Your task to perform on an android device: What's the weather today? Image 0: 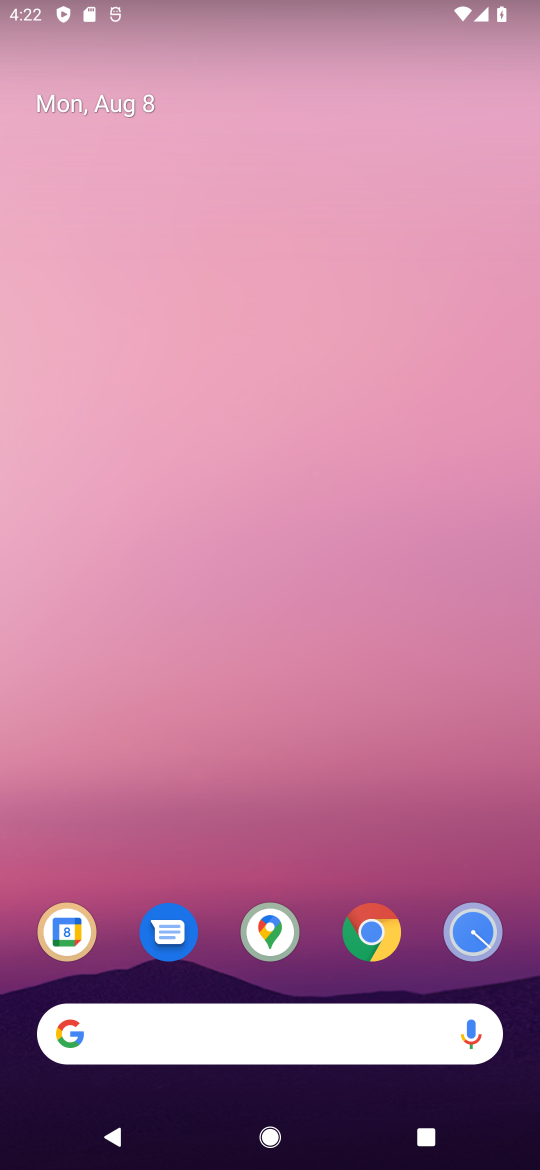
Step 0: click (334, 1038)
Your task to perform on an android device: What's the weather today? Image 1: 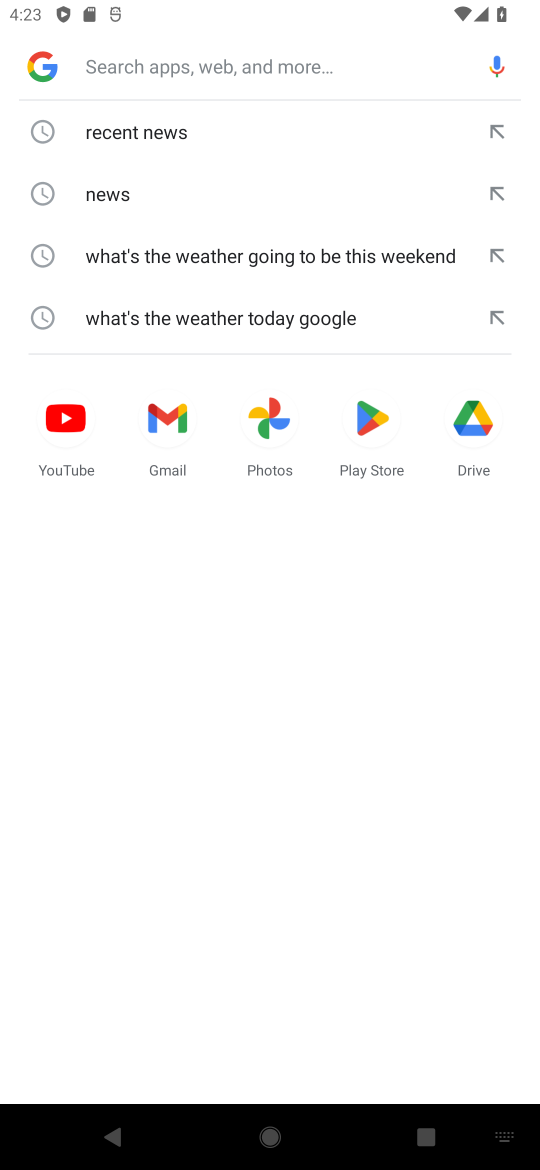
Step 1: type "What's the weather today?"
Your task to perform on an android device: What's the weather today? Image 2: 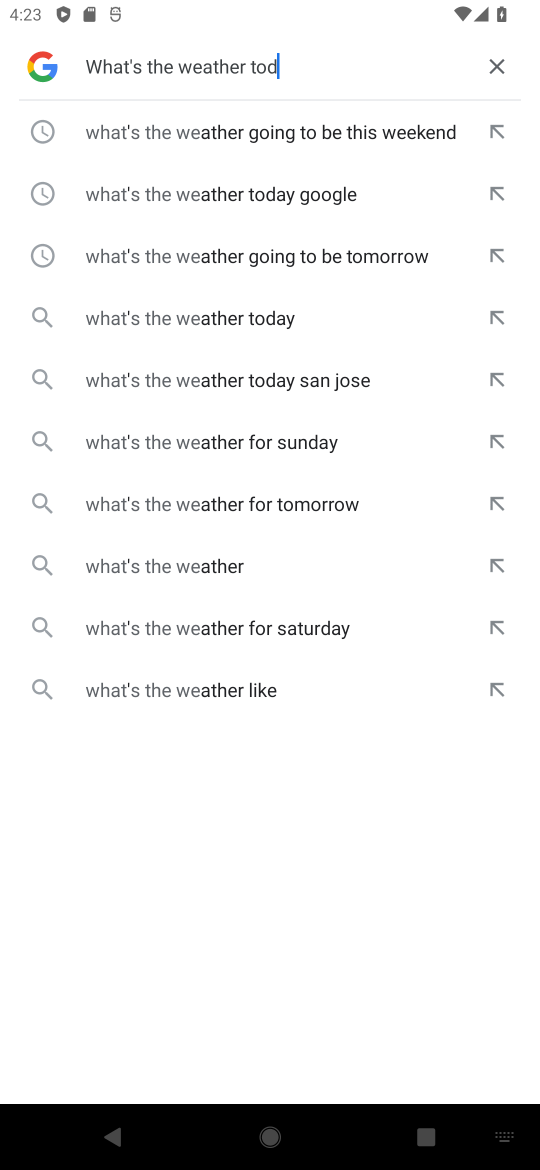
Step 2: type ""
Your task to perform on an android device: What's the weather today? Image 3: 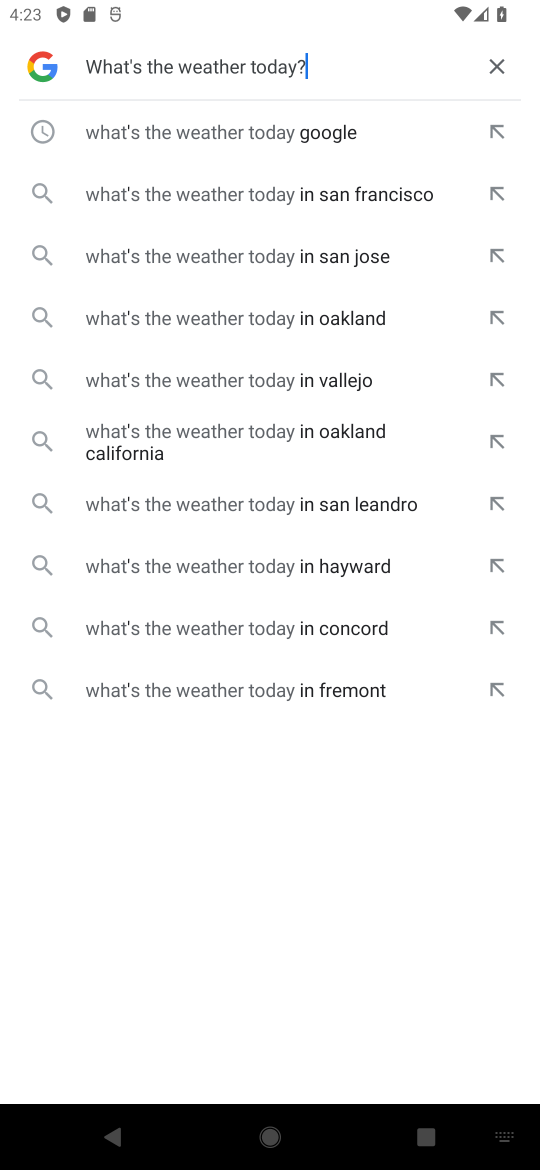
Step 3: press enter
Your task to perform on an android device: What's the weather today? Image 4: 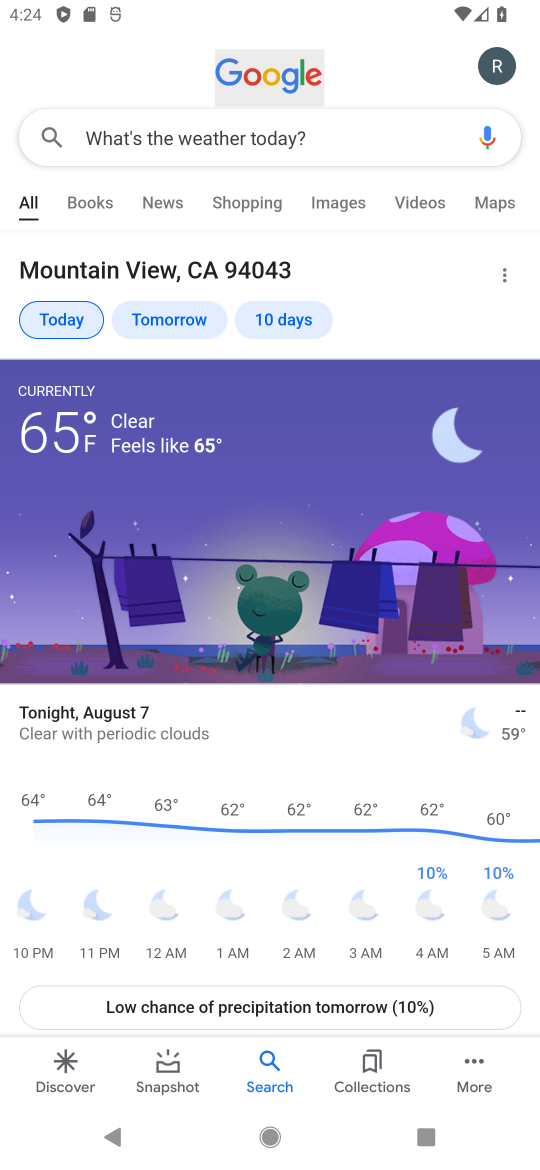
Step 4: task complete